Your task to perform on an android device: add a label to a message in the gmail app Image 0: 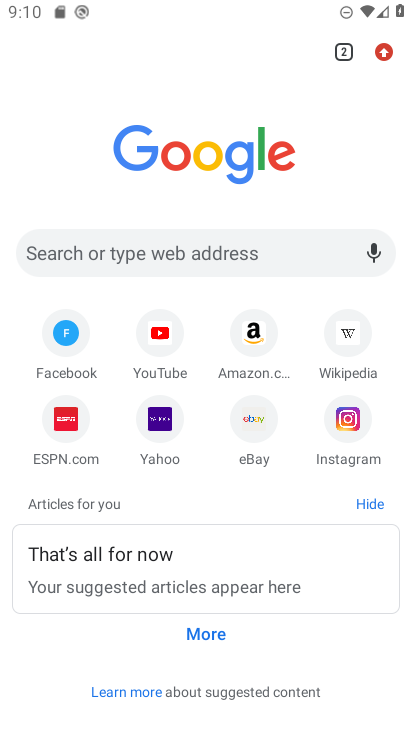
Step 0: press home button
Your task to perform on an android device: add a label to a message in the gmail app Image 1: 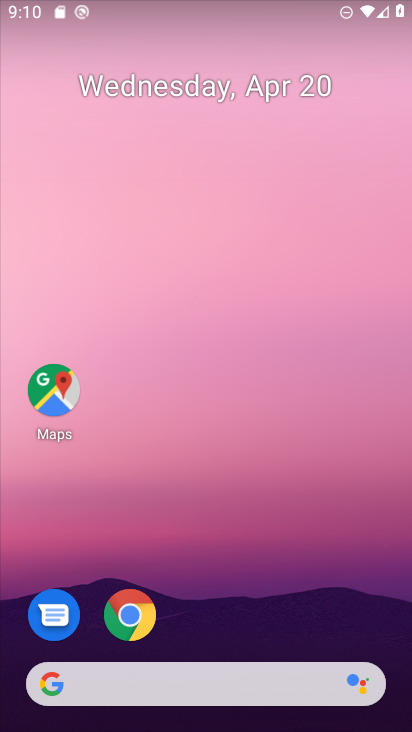
Step 1: drag from (237, 599) to (230, 69)
Your task to perform on an android device: add a label to a message in the gmail app Image 2: 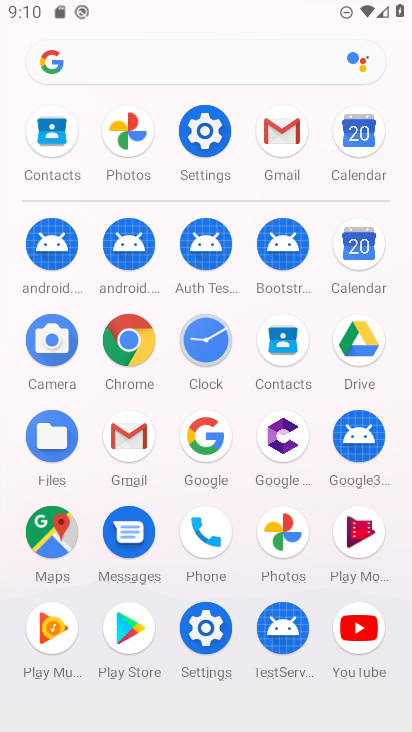
Step 2: click (281, 131)
Your task to perform on an android device: add a label to a message in the gmail app Image 3: 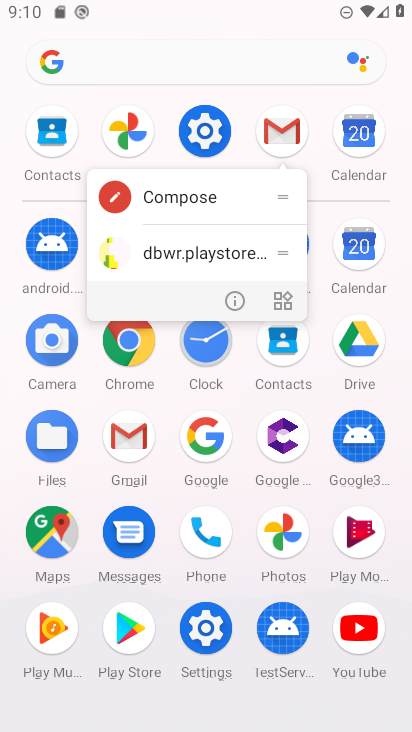
Step 3: click (281, 131)
Your task to perform on an android device: add a label to a message in the gmail app Image 4: 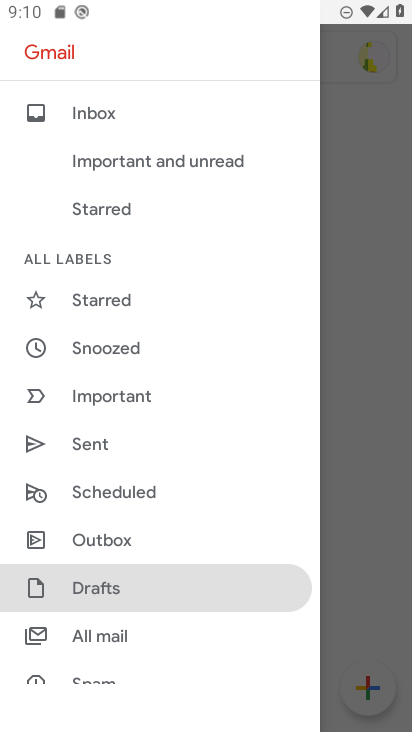
Step 4: click (98, 119)
Your task to perform on an android device: add a label to a message in the gmail app Image 5: 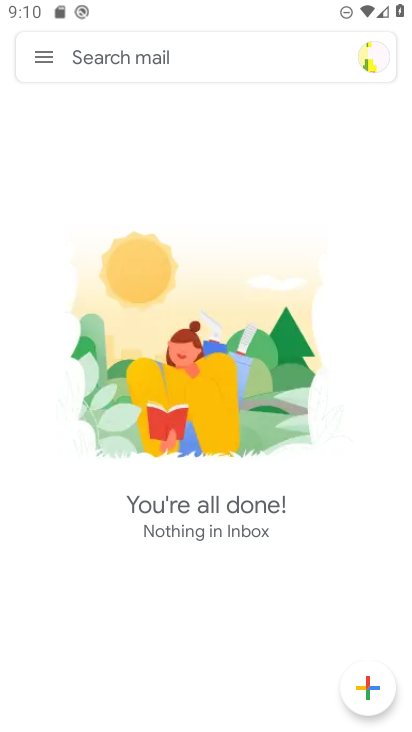
Step 5: click (50, 59)
Your task to perform on an android device: add a label to a message in the gmail app Image 6: 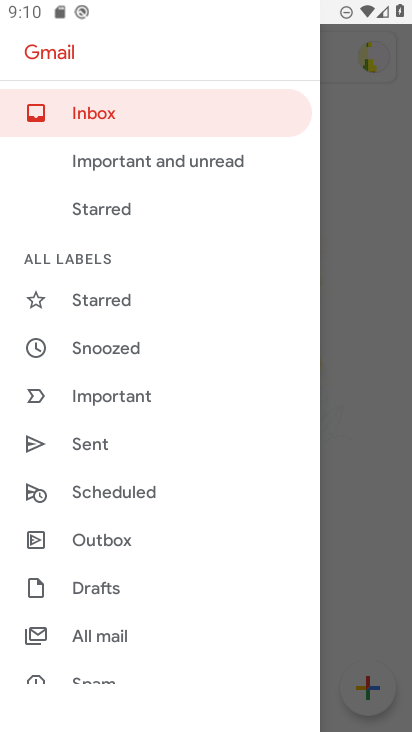
Step 6: click (116, 638)
Your task to perform on an android device: add a label to a message in the gmail app Image 7: 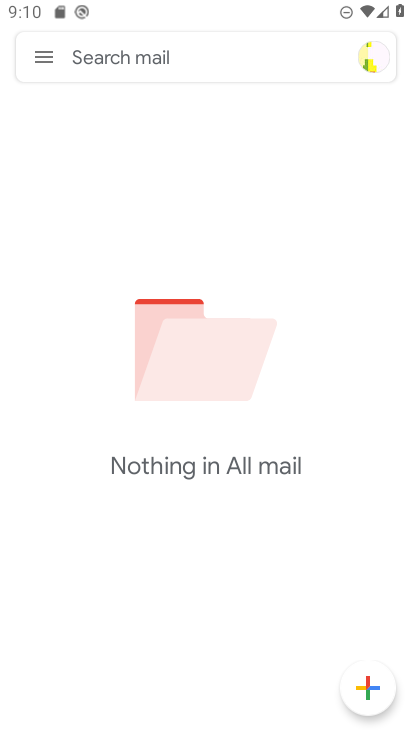
Step 7: click (49, 51)
Your task to perform on an android device: add a label to a message in the gmail app Image 8: 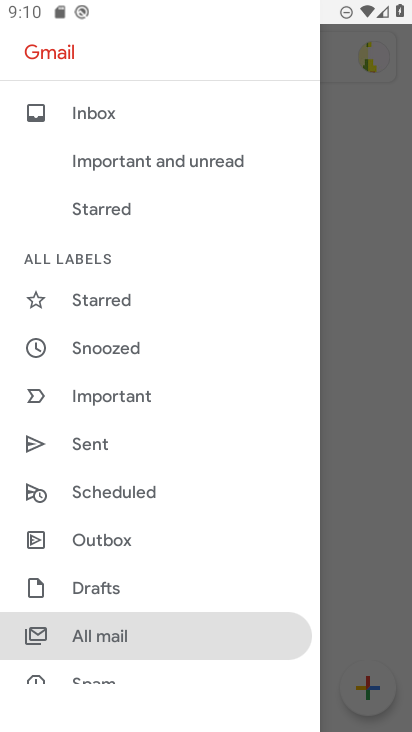
Step 8: click (122, 527)
Your task to perform on an android device: add a label to a message in the gmail app Image 9: 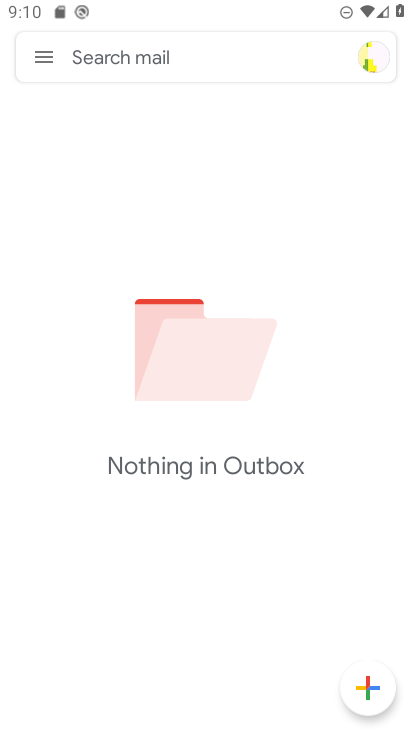
Step 9: task complete